Your task to perform on an android device: Search for seafood restaurants on Google Maps Image 0: 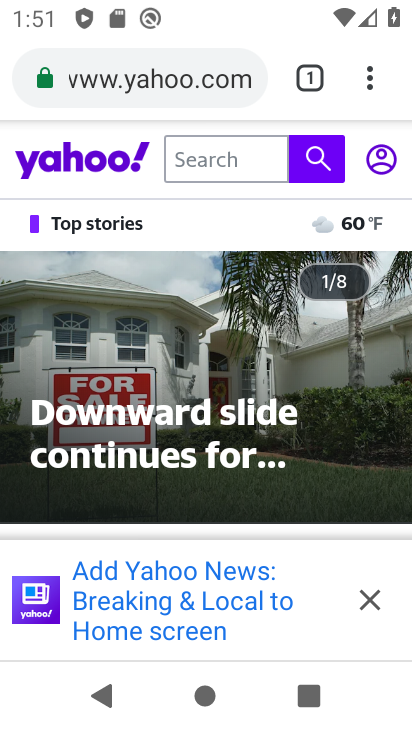
Step 0: press home button
Your task to perform on an android device: Search for seafood restaurants on Google Maps Image 1: 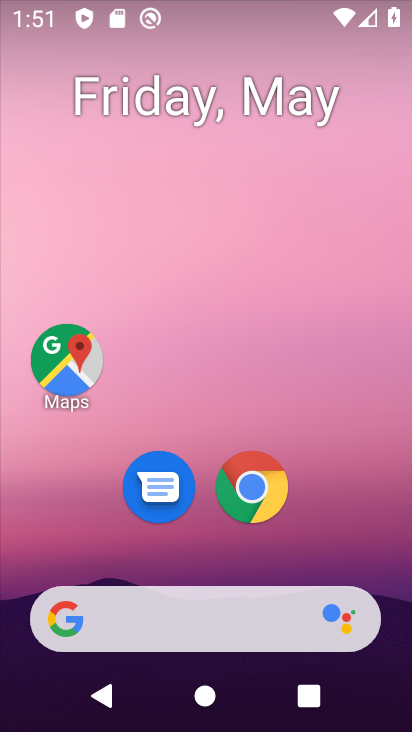
Step 1: click (67, 366)
Your task to perform on an android device: Search for seafood restaurants on Google Maps Image 2: 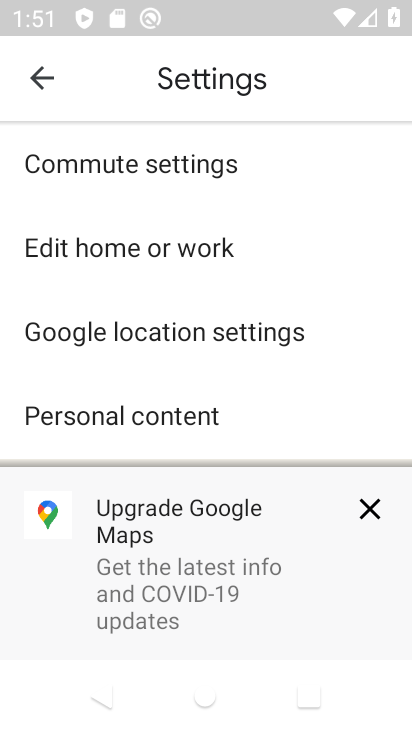
Step 2: click (45, 77)
Your task to perform on an android device: Search for seafood restaurants on Google Maps Image 3: 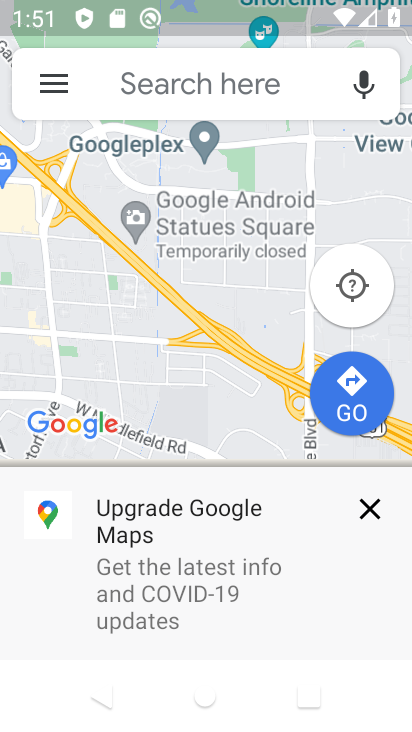
Step 3: click (141, 87)
Your task to perform on an android device: Search for seafood restaurants on Google Maps Image 4: 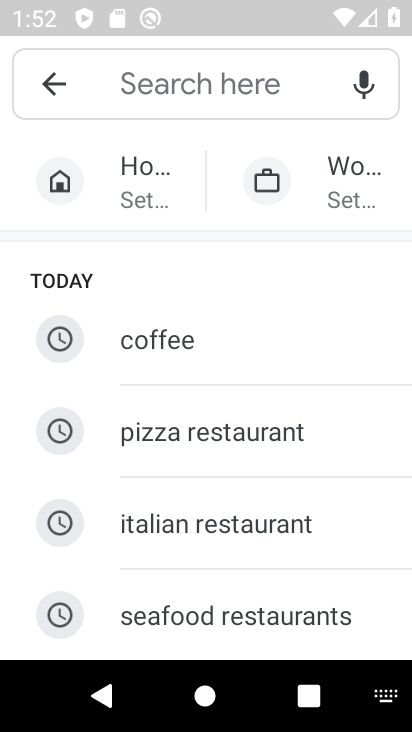
Step 4: type "seafood restaurant"
Your task to perform on an android device: Search for seafood restaurants on Google Maps Image 5: 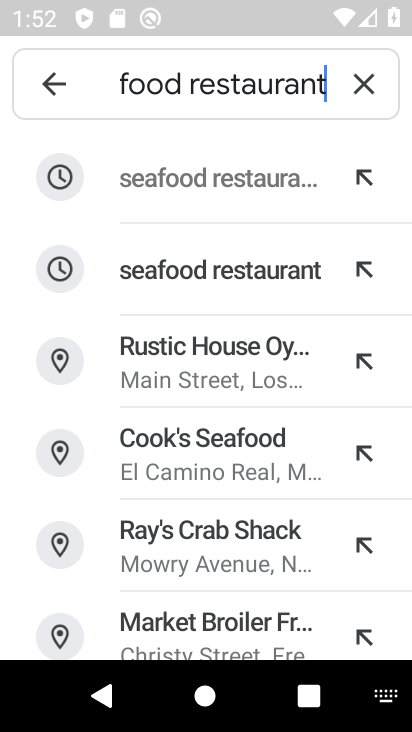
Step 5: click (180, 174)
Your task to perform on an android device: Search for seafood restaurants on Google Maps Image 6: 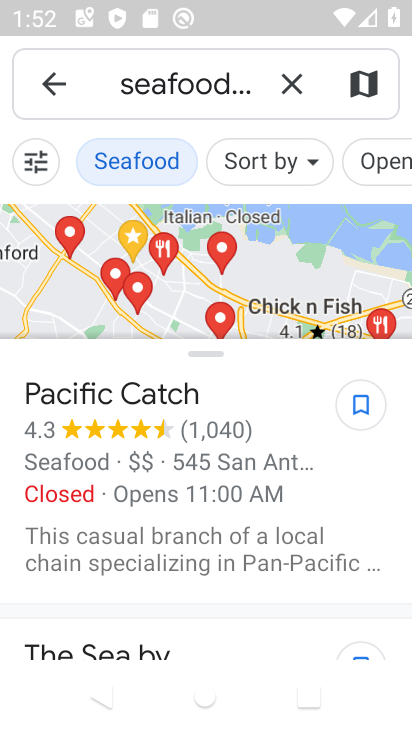
Step 6: task complete